Your task to perform on an android device: Play the last video I watched on Youtube Image 0: 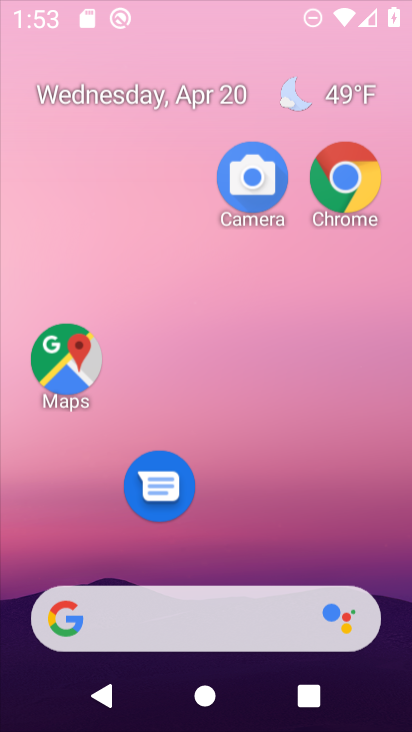
Step 0: drag from (294, 656) to (381, 142)
Your task to perform on an android device: Play the last video I watched on Youtube Image 1: 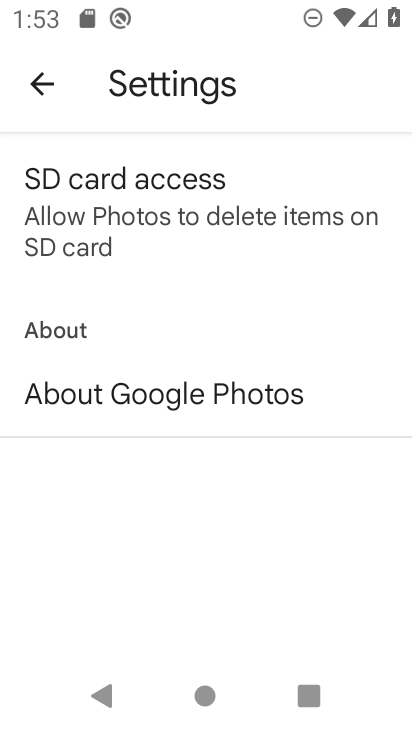
Step 1: press home button
Your task to perform on an android device: Play the last video I watched on Youtube Image 2: 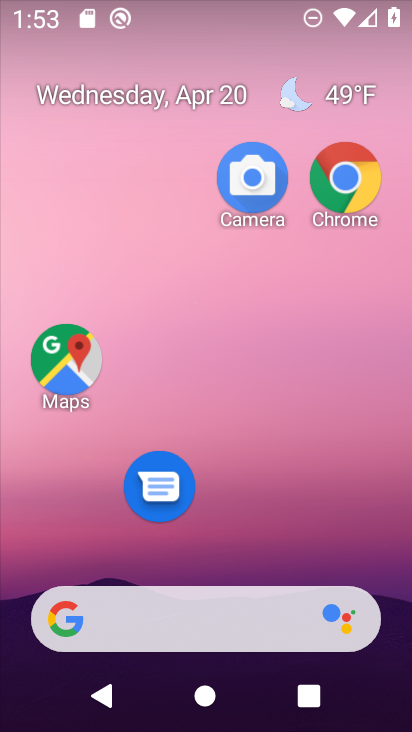
Step 2: drag from (233, 538) to (225, 102)
Your task to perform on an android device: Play the last video I watched on Youtube Image 3: 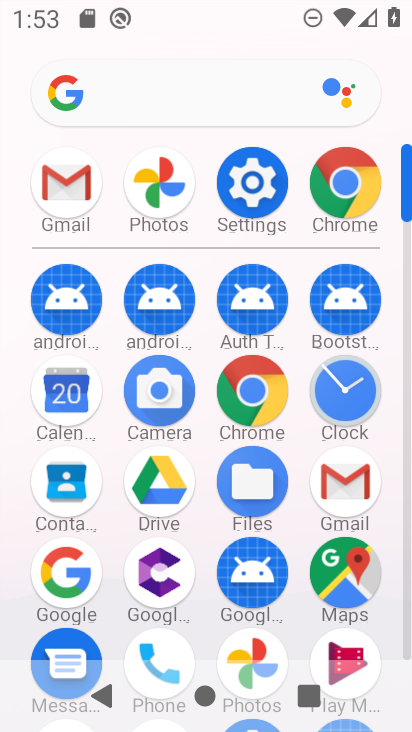
Step 3: drag from (197, 516) to (227, 296)
Your task to perform on an android device: Play the last video I watched on Youtube Image 4: 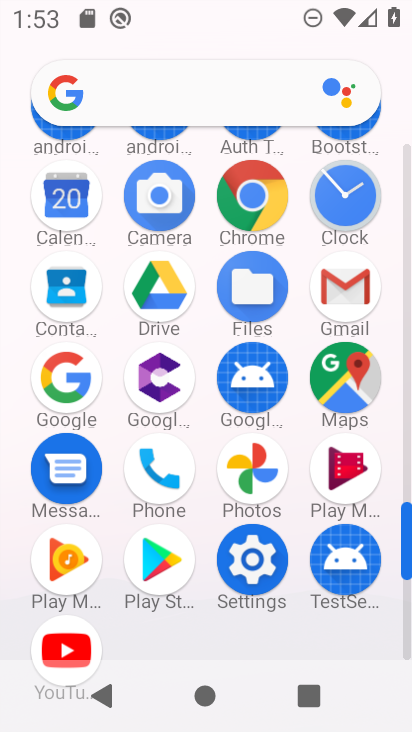
Step 4: click (62, 626)
Your task to perform on an android device: Play the last video I watched on Youtube Image 5: 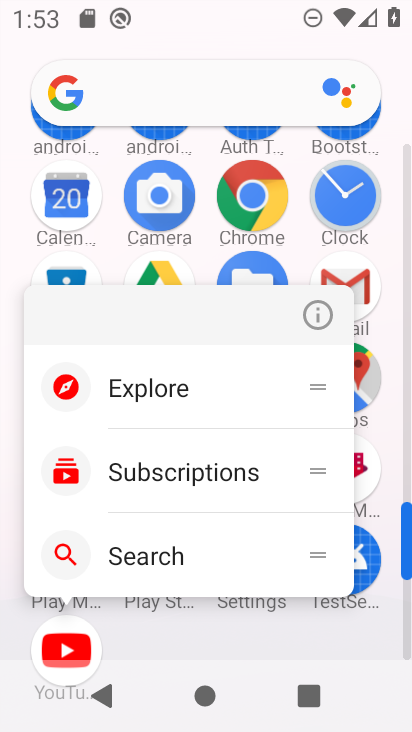
Step 5: click (77, 647)
Your task to perform on an android device: Play the last video I watched on Youtube Image 6: 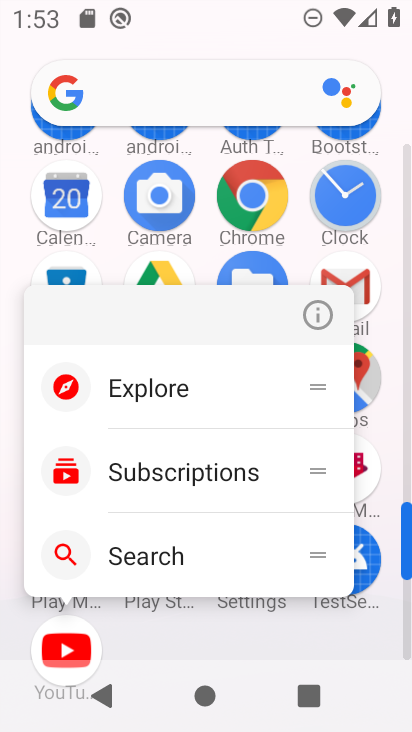
Step 6: click (77, 647)
Your task to perform on an android device: Play the last video I watched on Youtube Image 7: 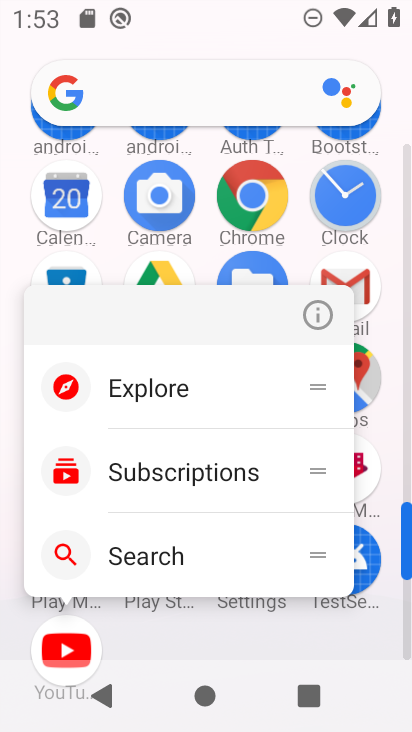
Step 7: click (77, 647)
Your task to perform on an android device: Play the last video I watched on Youtube Image 8: 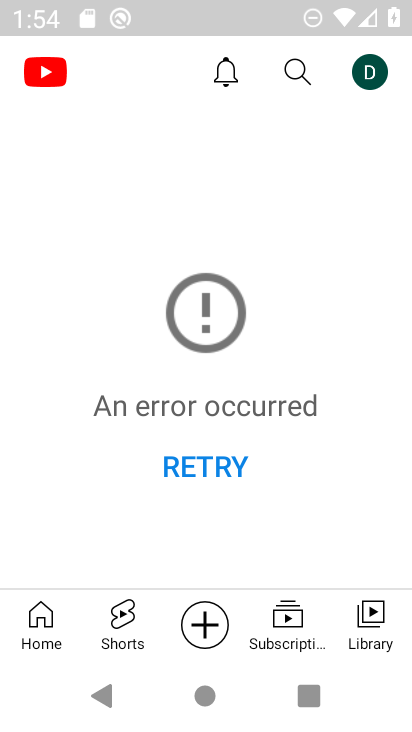
Step 8: click (192, 476)
Your task to perform on an android device: Play the last video I watched on Youtube Image 9: 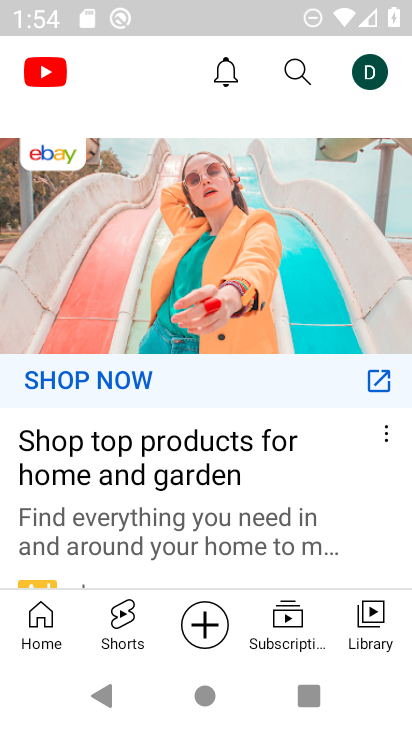
Step 9: click (358, 624)
Your task to perform on an android device: Play the last video I watched on Youtube Image 10: 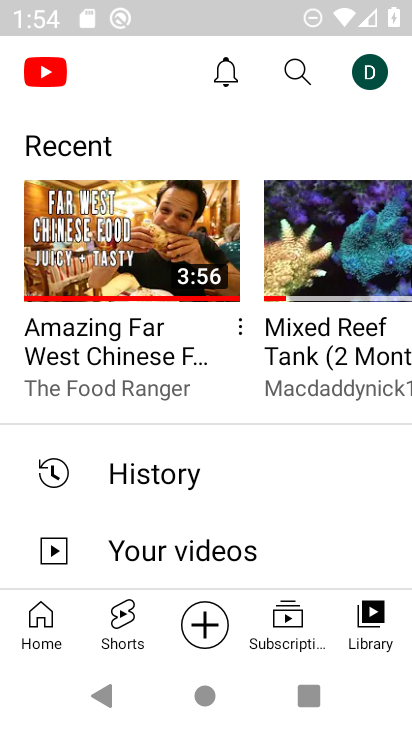
Step 10: click (178, 268)
Your task to perform on an android device: Play the last video I watched on Youtube Image 11: 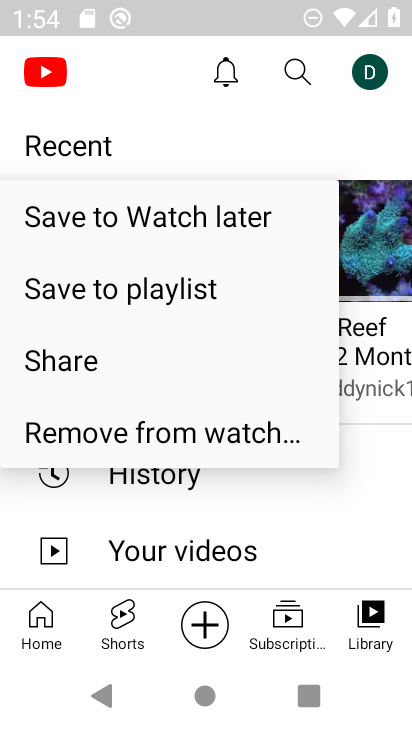
Step 11: click (355, 463)
Your task to perform on an android device: Play the last video I watched on Youtube Image 12: 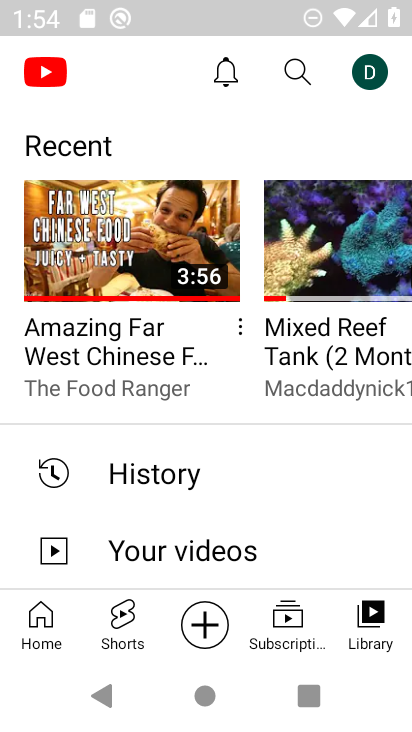
Step 12: click (157, 270)
Your task to perform on an android device: Play the last video I watched on Youtube Image 13: 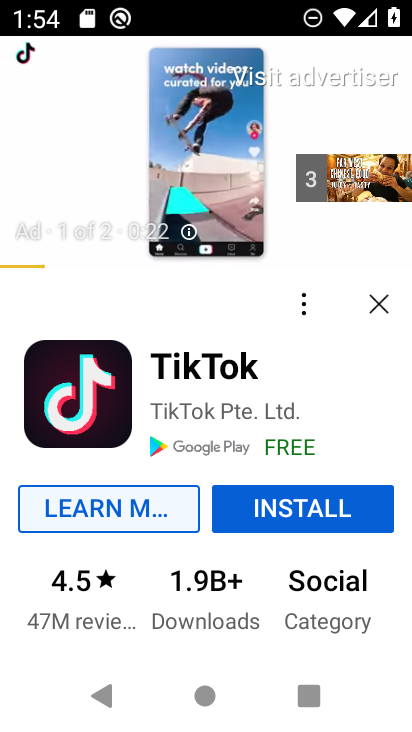
Step 13: click (380, 304)
Your task to perform on an android device: Play the last video I watched on Youtube Image 14: 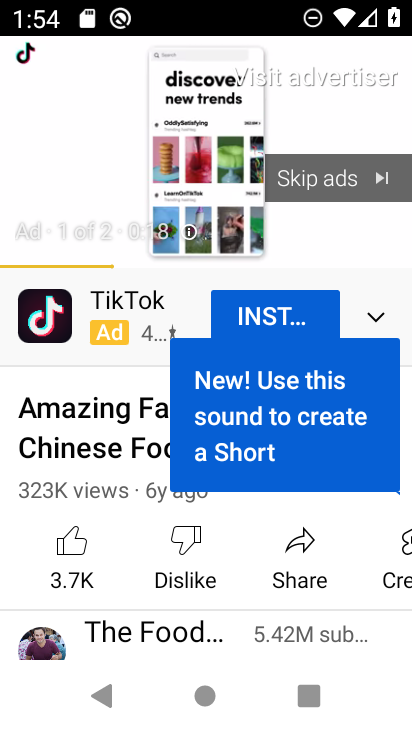
Step 14: click (348, 181)
Your task to perform on an android device: Play the last video I watched on Youtube Image 15: 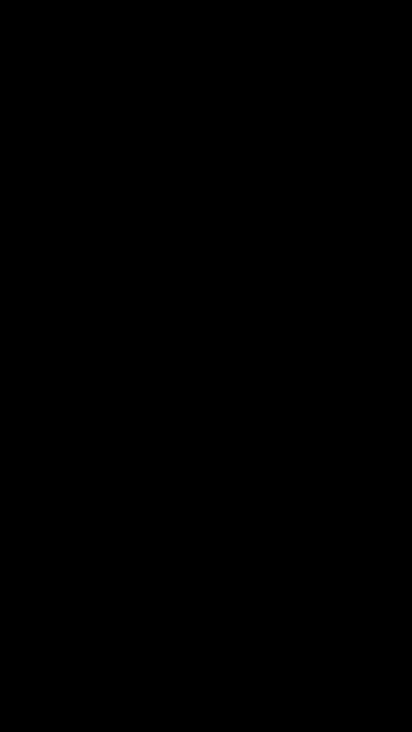
Step 15: task complete